Your task to perform on an android device: open app "Speedtest by Ookla" Image 0: 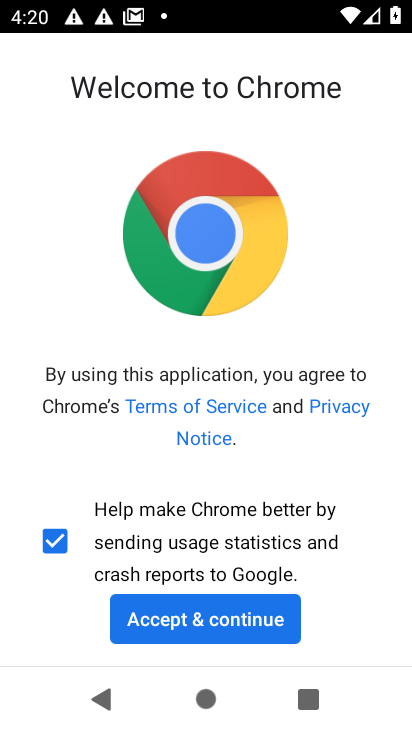
Step 0: press home button
Your task to perform on an android device: open app "Speedtest by Ookla" Image 1: 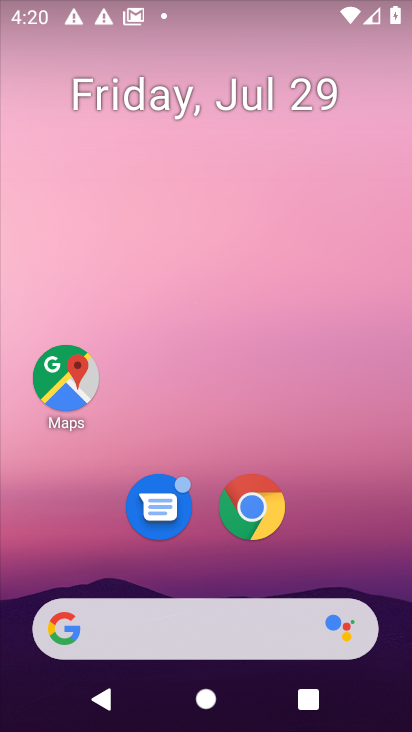
Step 1: drag from (328, 562) to (332, 30)
Your task to perform on an android device: open app "Speedtest by Ookla" Image 2: 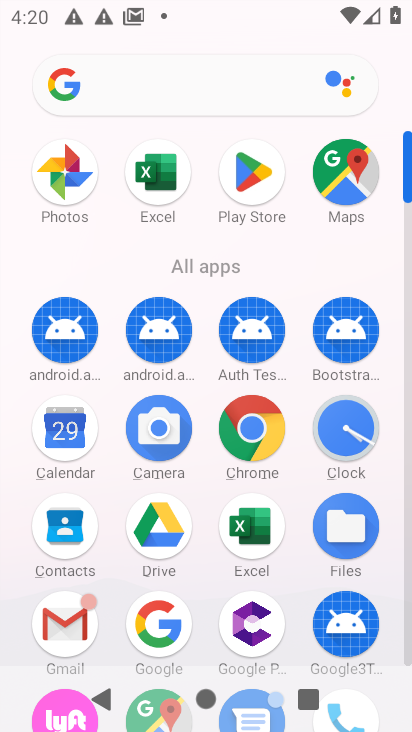
Step 2: click (236, 183)
Your task to perform on an android device: open app "Speedtest by Ookla" Image 3: 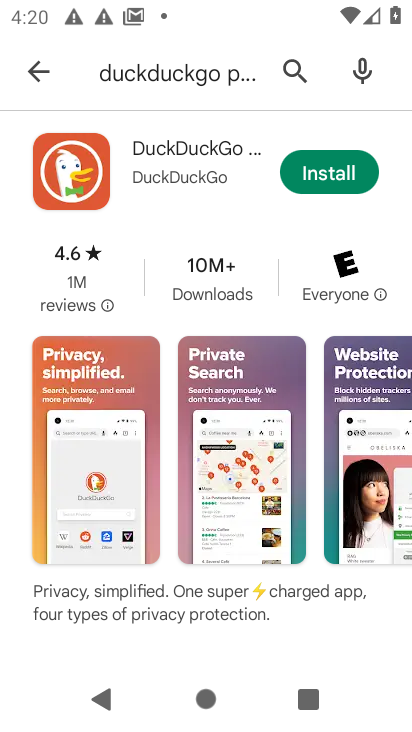
Step 3: click (300, 70)
Your task to perform on an android device: open app "Speedtest by Ookla" Image 4: 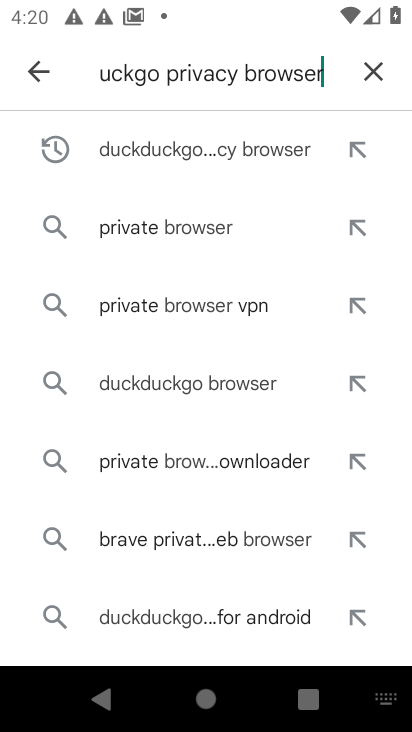
Step 4: click (365, 70)
Your task to perform on an android device: open app "Speedtest by Ookla" Image 5: 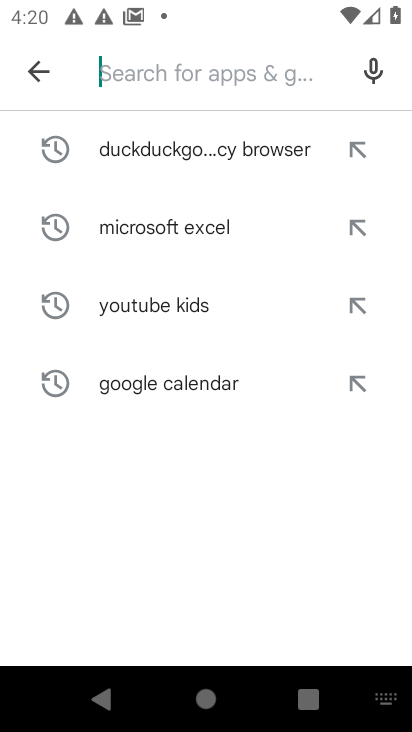
Step 5: type "Speedtest by Ookla"
Your task to perform on an android device: open app "Speedtest by Ookla" Image 6: 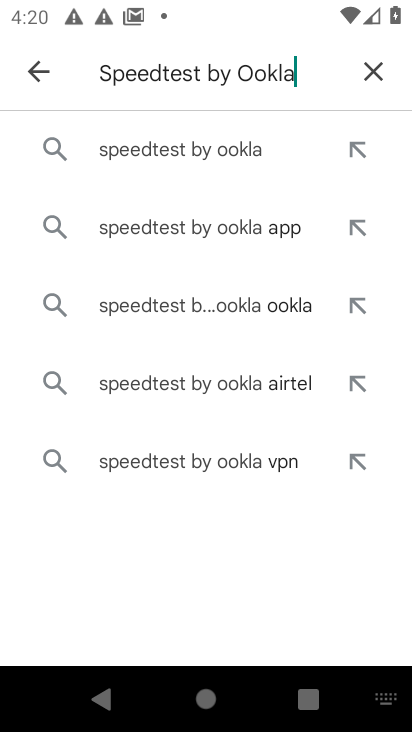
Step 6: click (195, 153)
Your task to perform on an android device: open app "Speedtest by Ookla" Image 7: 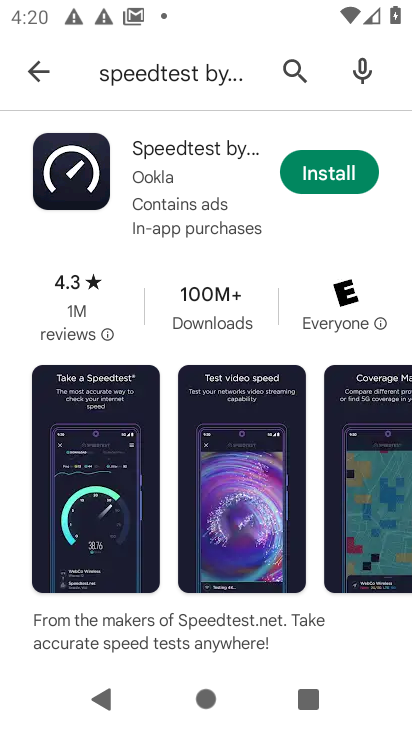
Step 7: task complete